Your task to perform on an android device: open chrome privacy settings Image 0: 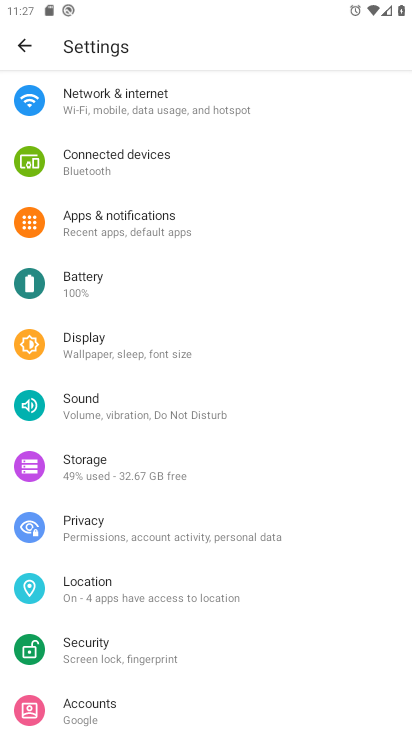
Step 0: press home button
Your task to perform on an android device: open chrome privacy settings Image 1: 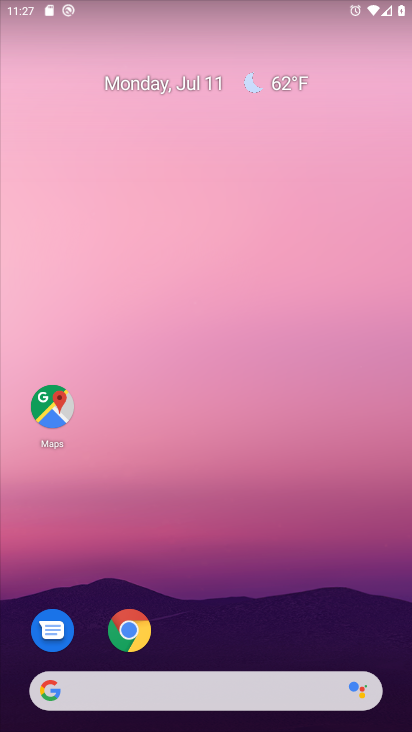
Step 1: click (135, 627)
Your task to perform on an android device: open chrome privacy settings Image 2: 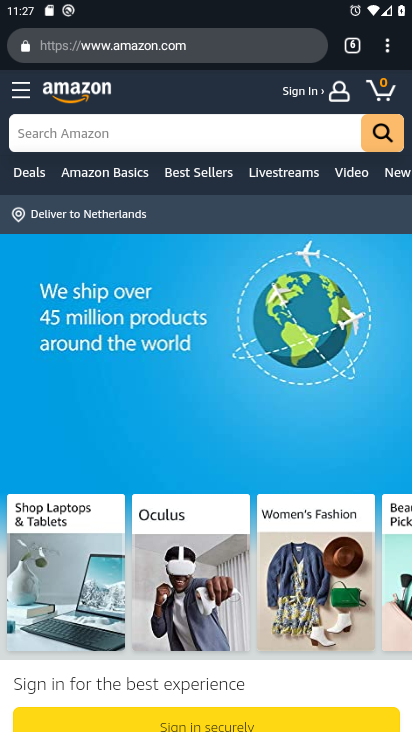
Step 2: click (389, 45)
Your task to perform on an android device: open chrome privacy settings Image 3: 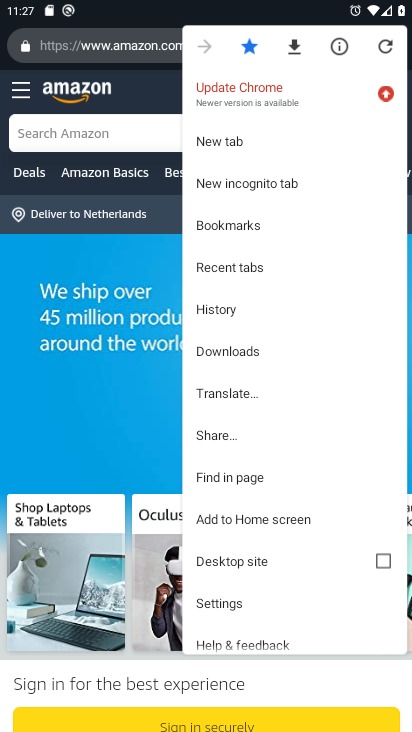
Step 3: click (235, 602)
Your task to perform on an android device: open chrome privacy settings Image 4: 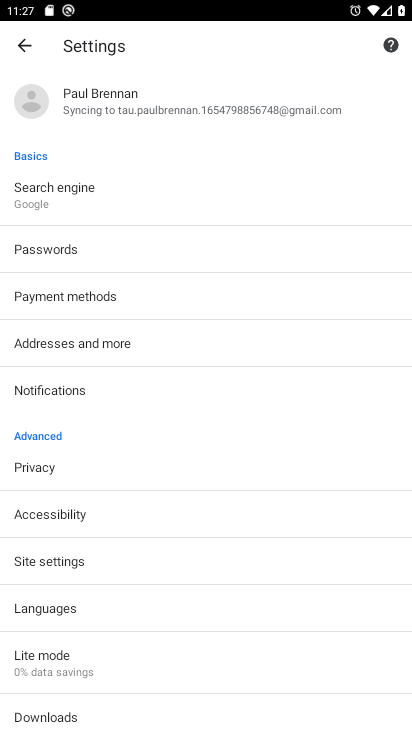
Step 4: click (42, 468)
Your task to perform on an android device: open chrome privacy settings Image 5: 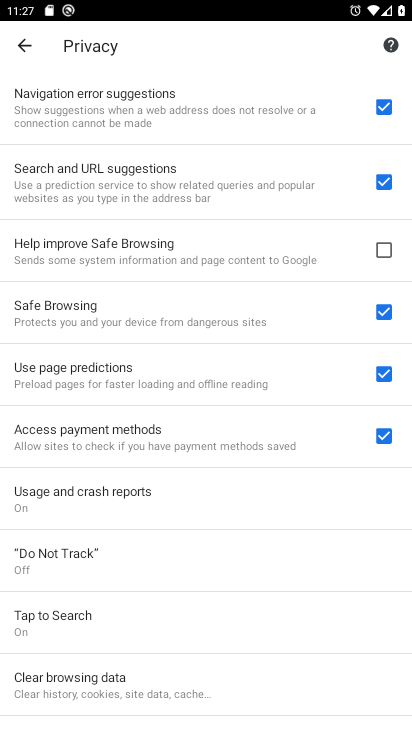
Step 5: task complete